Your task to perform on an android device: Go to Google maps Image 0: 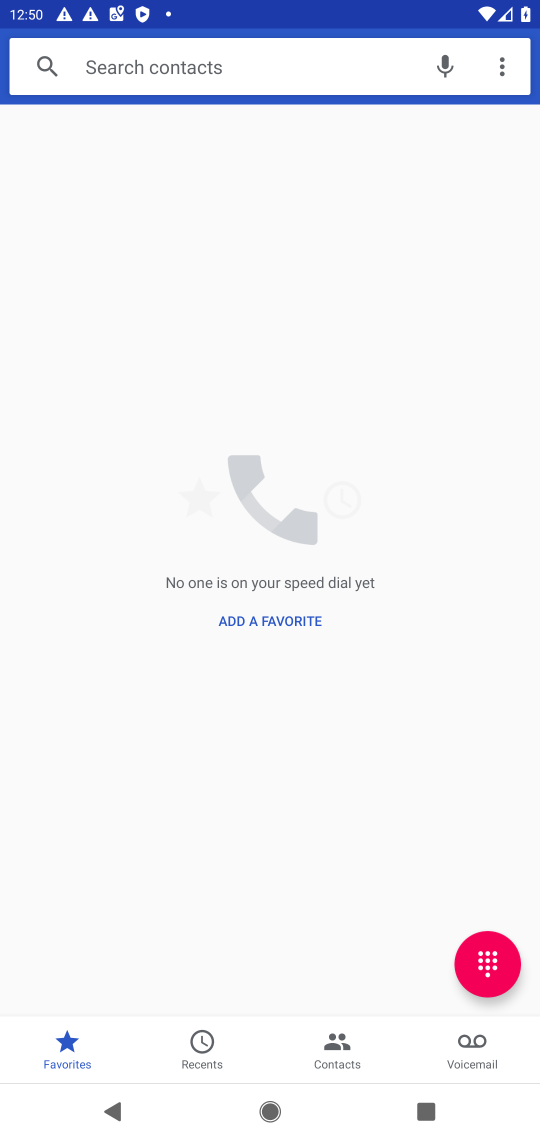
Step 0: press home button
Your task to perform on an android device: Go to Google maps Image 1: 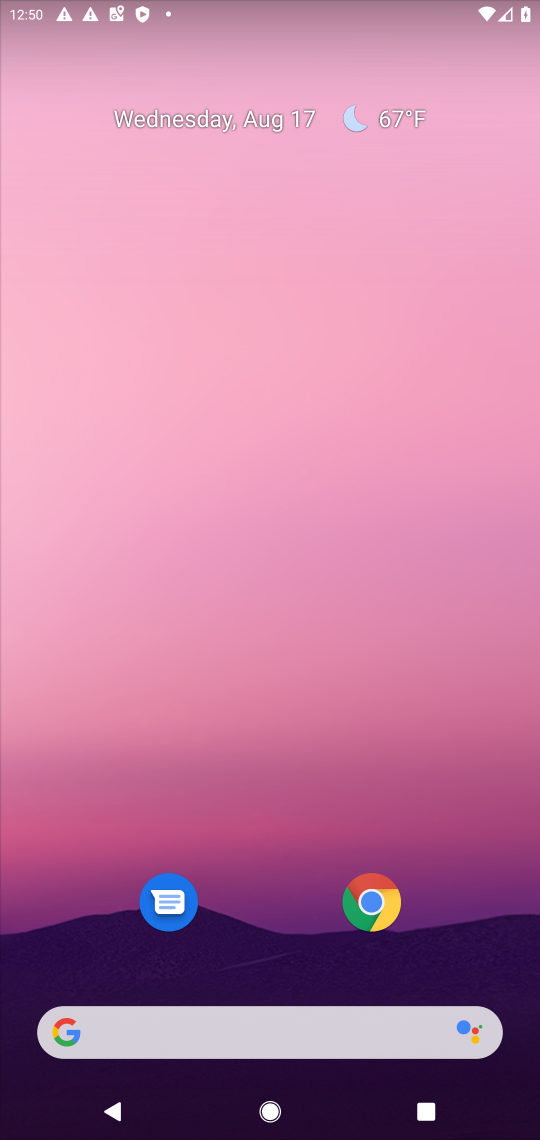
Step 1: drag from (281, 845) to (290, 0)
Your task to perform on an android device: Go to Google maps Image 2: 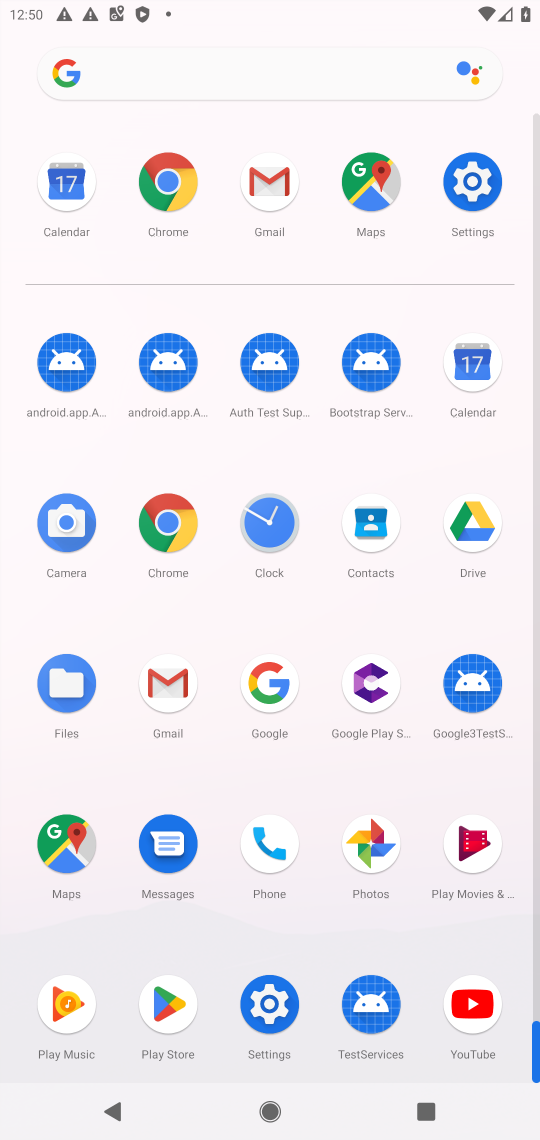
Step 2: click (54, 861)
Your task to perform on an android device: Go to Google maps Image 3: 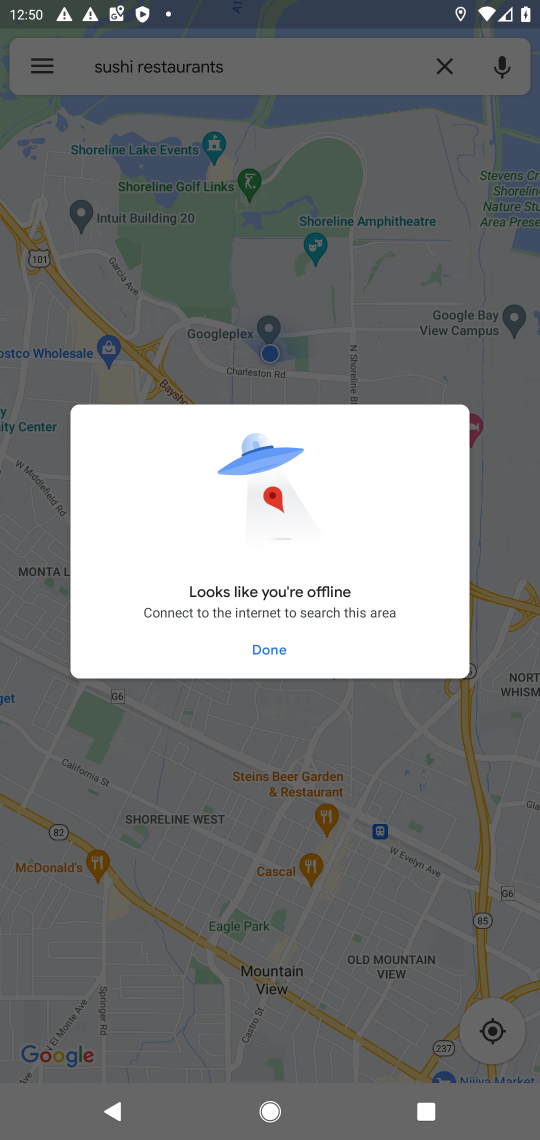
Step 3: click (298, 646)
Your task to perform on an android device: Go to Google maps Image 4: 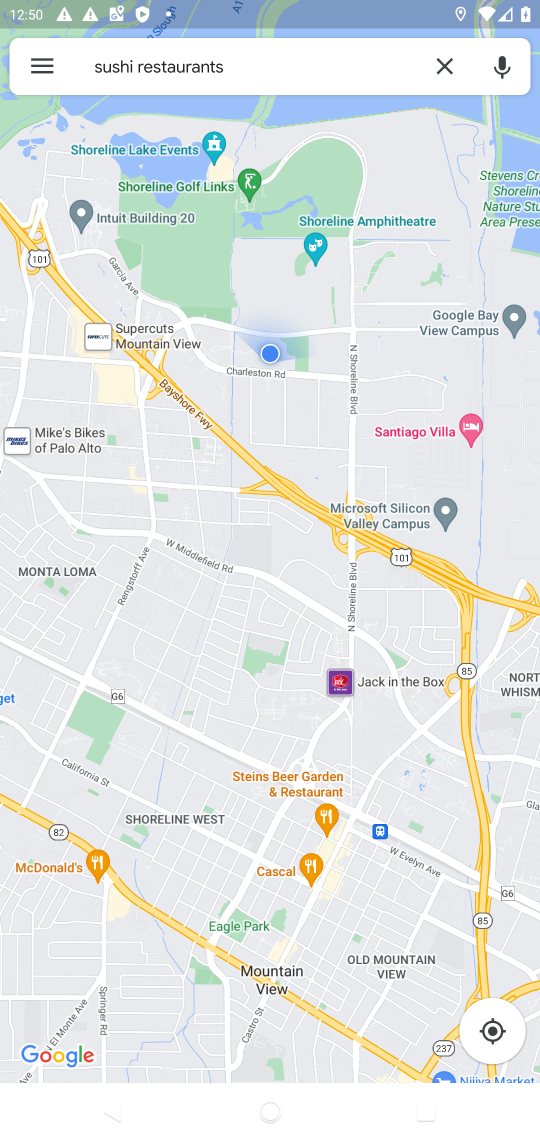
Step 4: task complete